Your task to perform on an android device: change the clock display to digital Image 0: 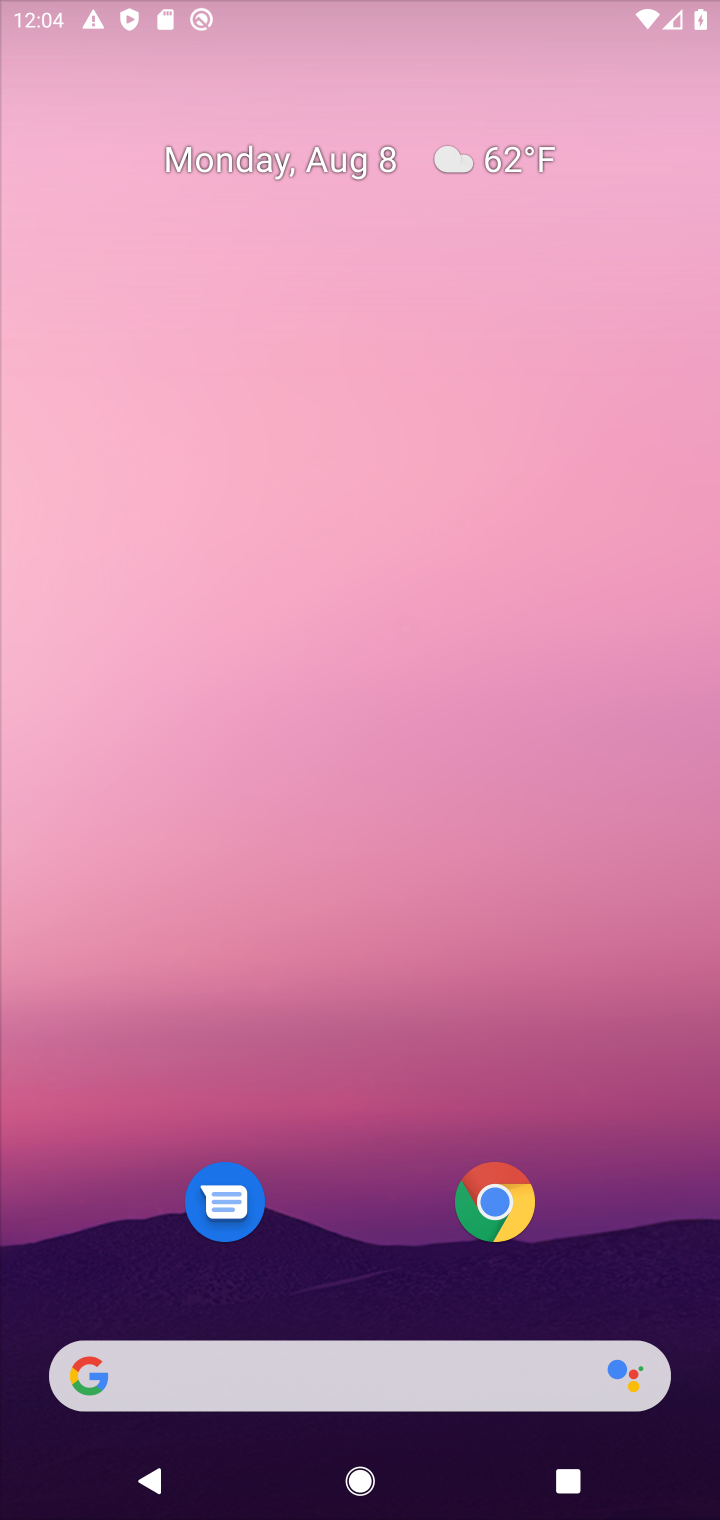
Step 0: press home button
Your task to perform on an android device: change the clock display to digital Image 1: 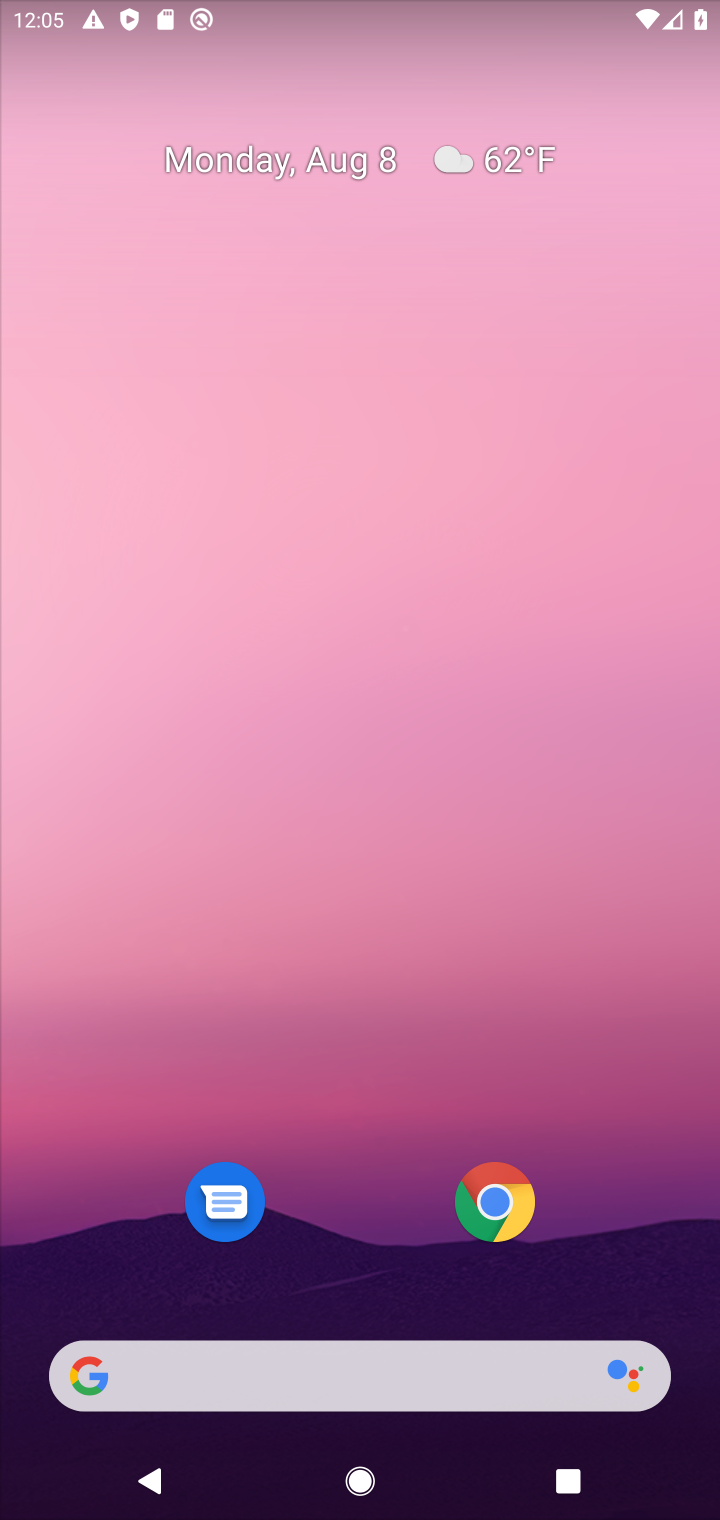
Step 1: drag from (201, 593) to (174, 348)
Your task to perform on an android device: change the clock display to digital Image 2: 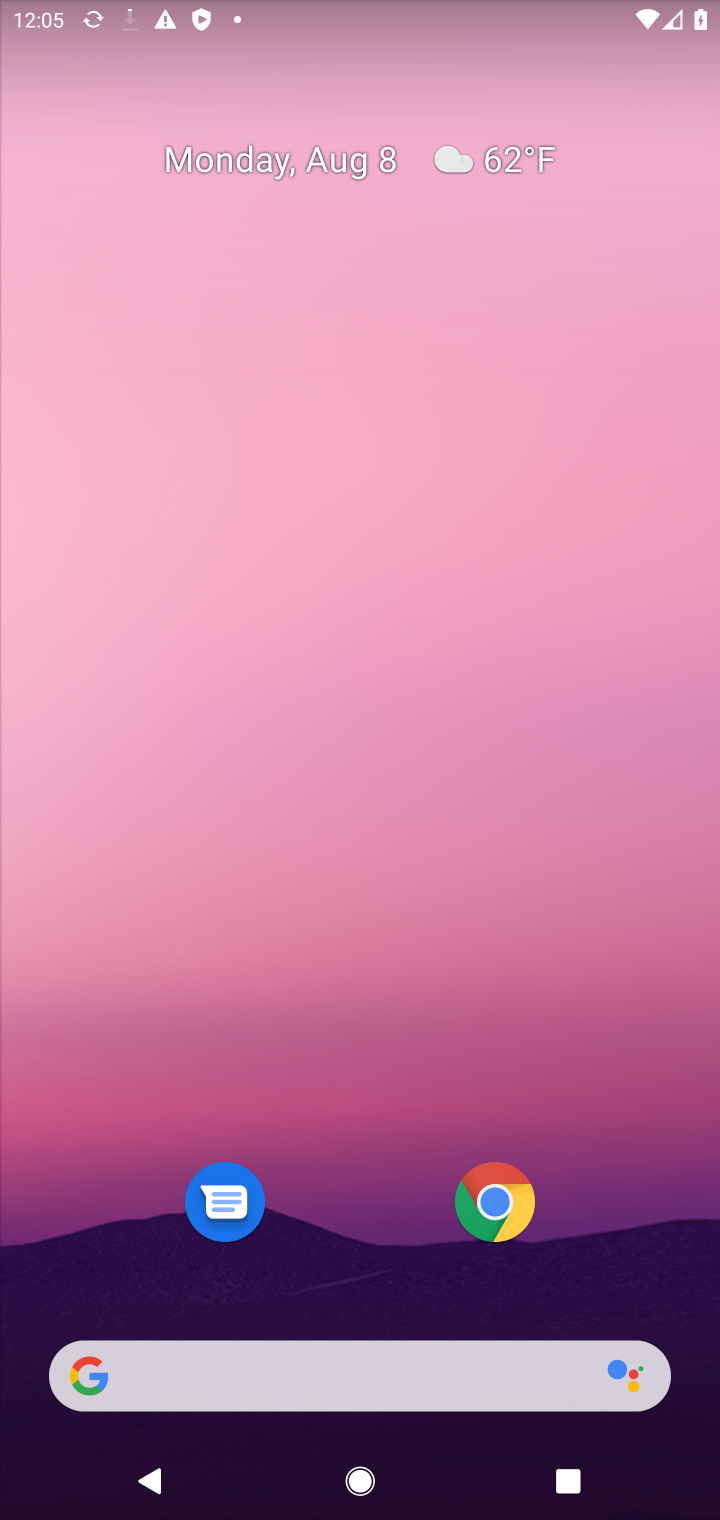
Step 2: click (324, 321)
Your task to perform on an android device: change the clock display to digital Image 3: 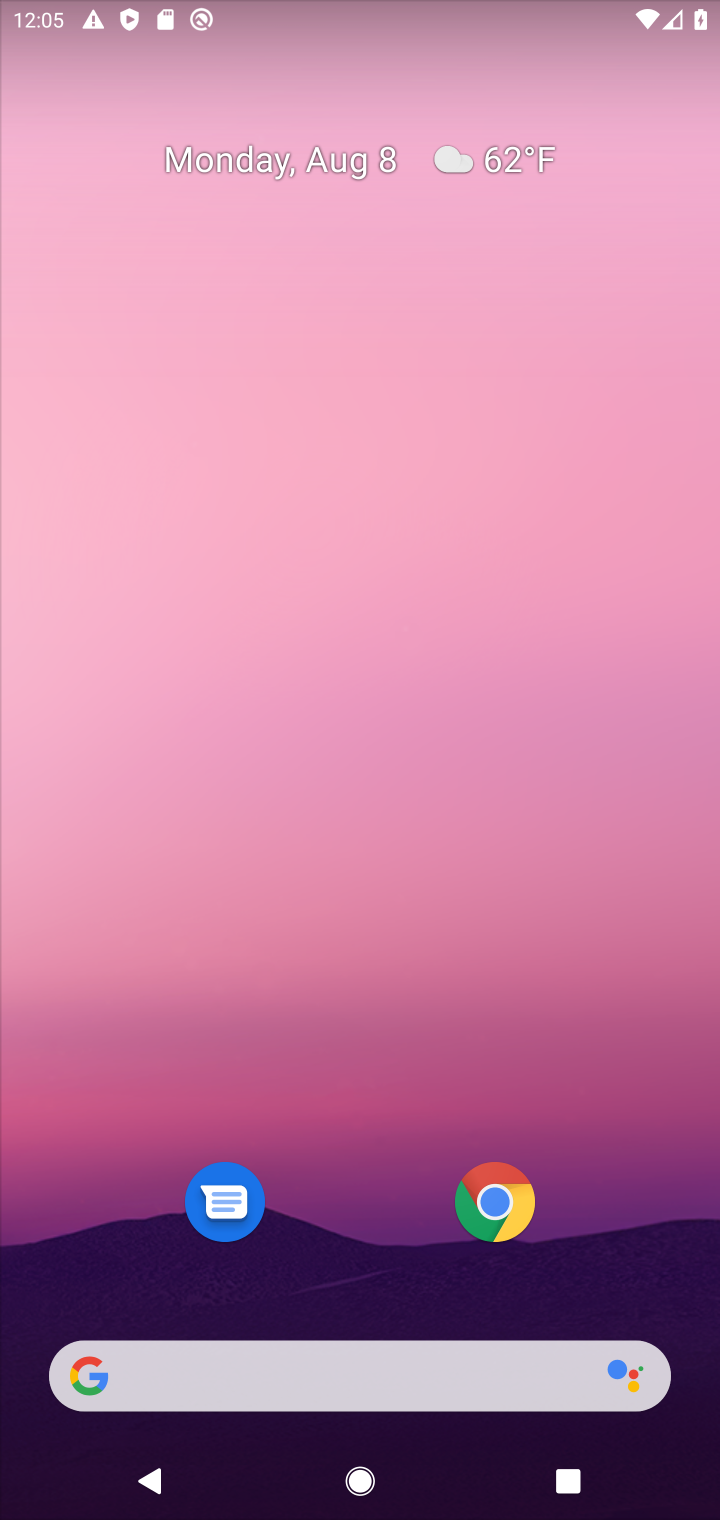
Step 3: click (261, 373)
Your task to perform on an android device: change the clock display to digital Image 4: 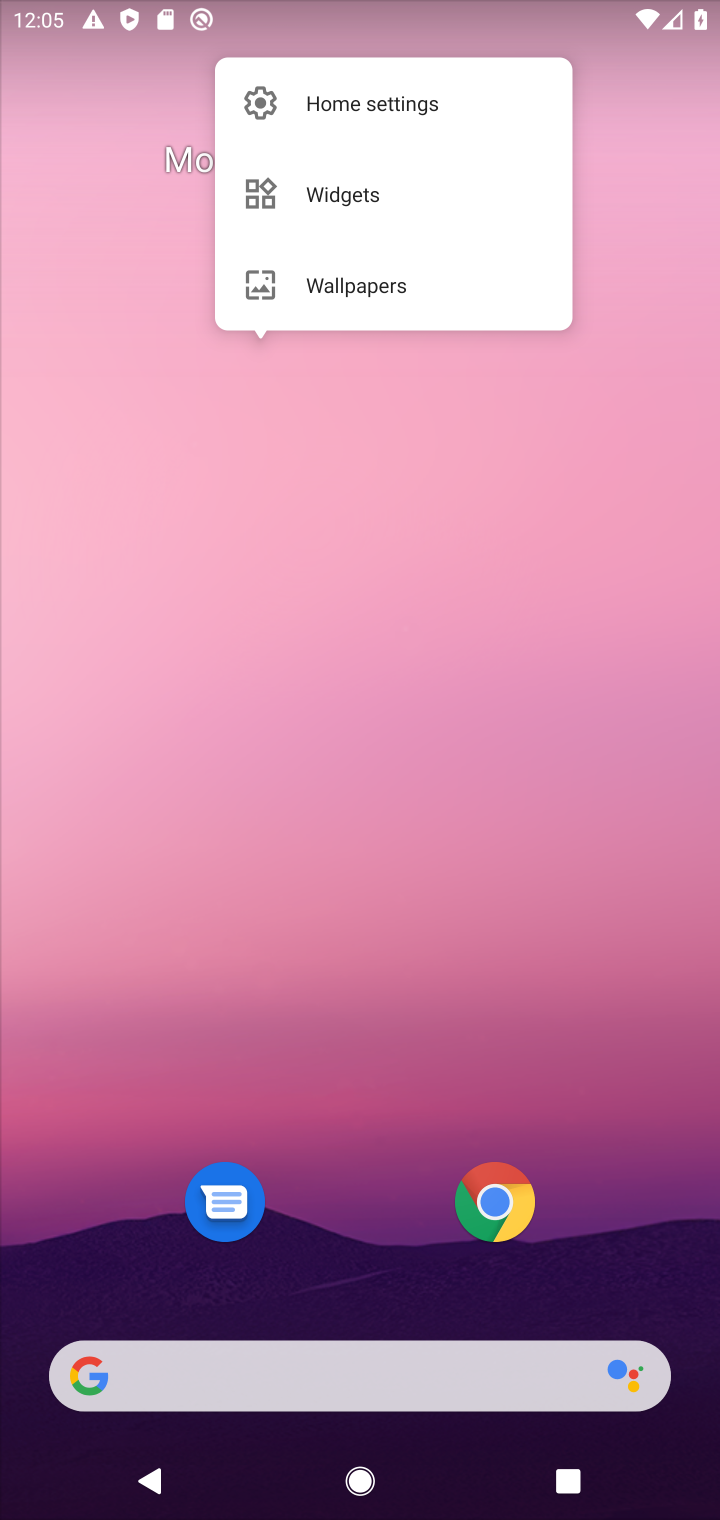
Step 4: click (379, 1283)
Your task to perform on an android device: change the clock display to digital Image 5: 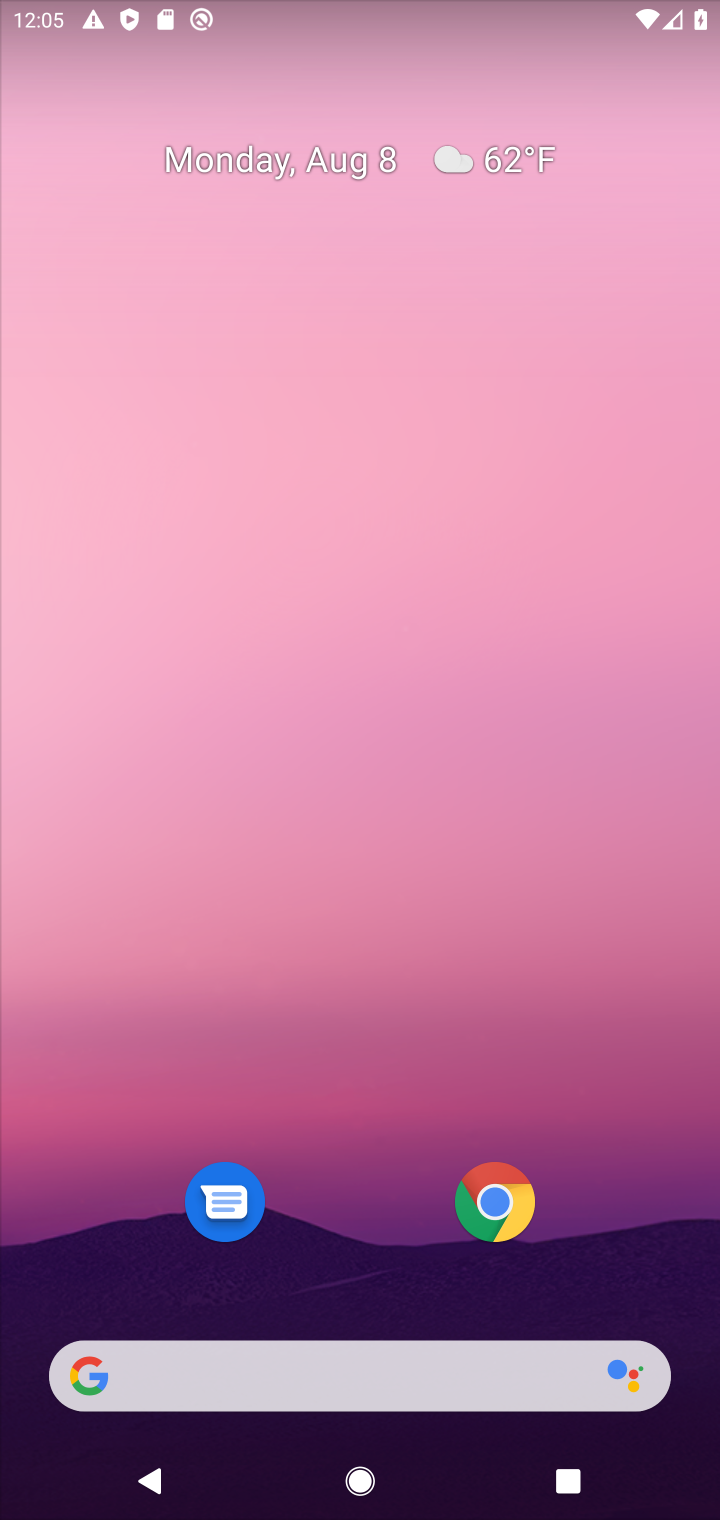
Step 5: drag from (379, 1283) to (333, 121)
Your task to perform on an android device: change the clock display to digital Image 6: 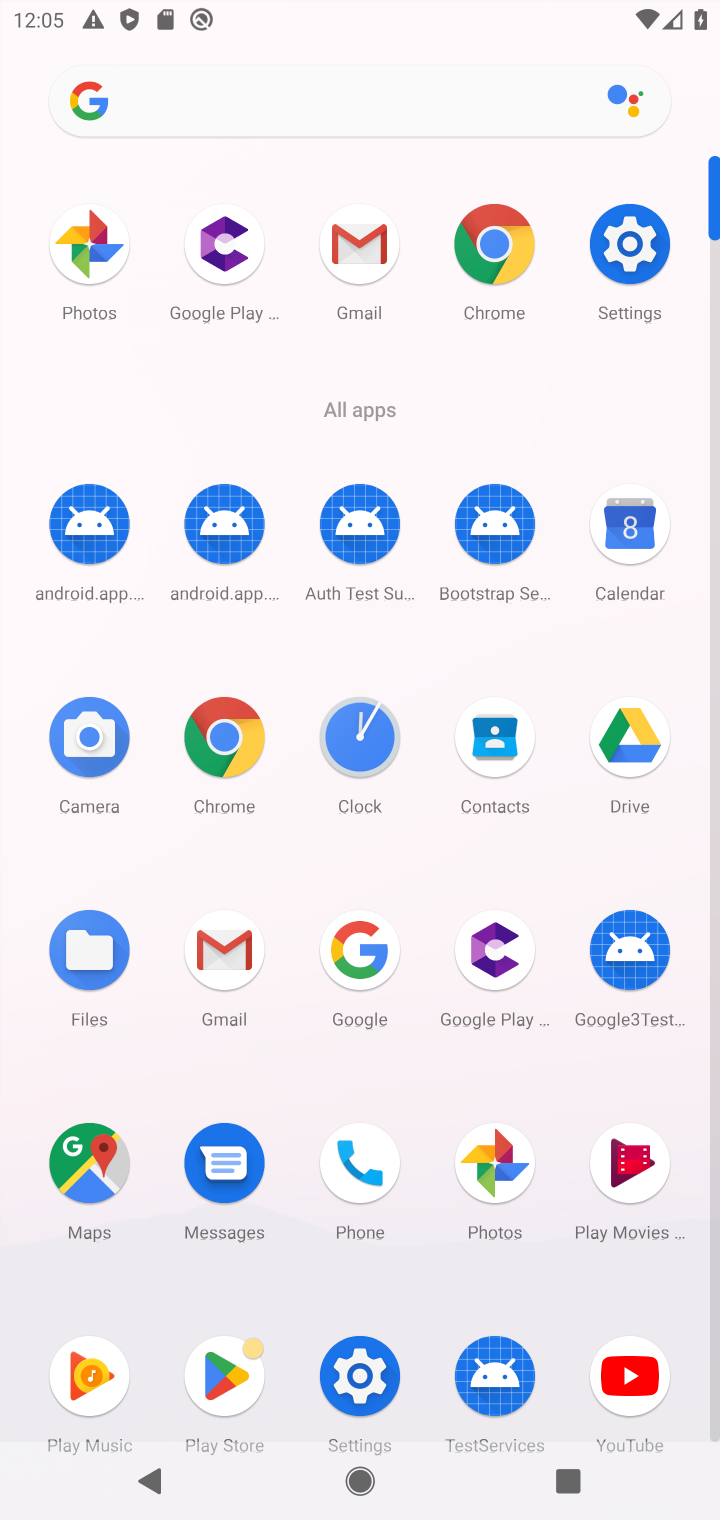
Step 6: click (362, 766)
Your task to perform on an android device: change the clock display to digital Image 7: 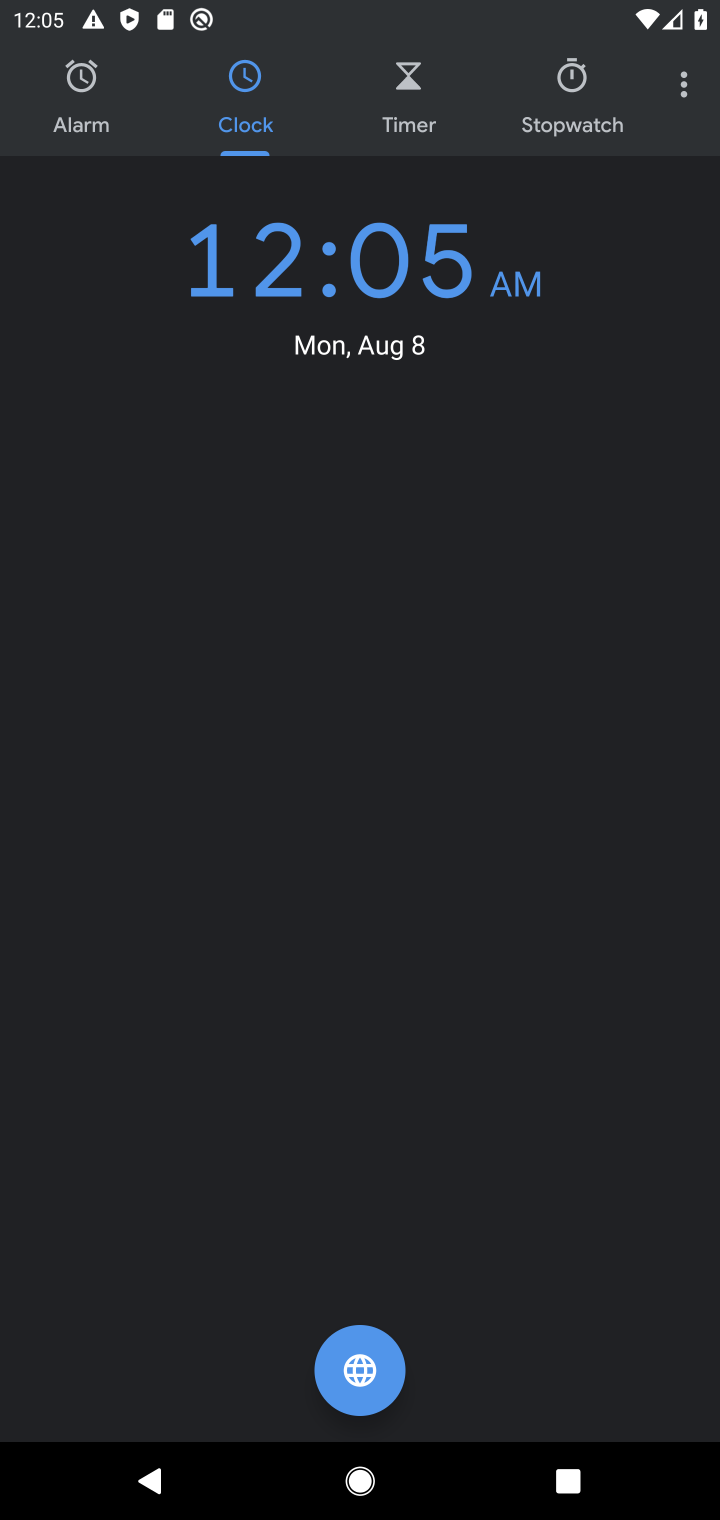
Step 7: click (689, 103)
Your task to perform on an android device: change the clock display to digital Image 8: 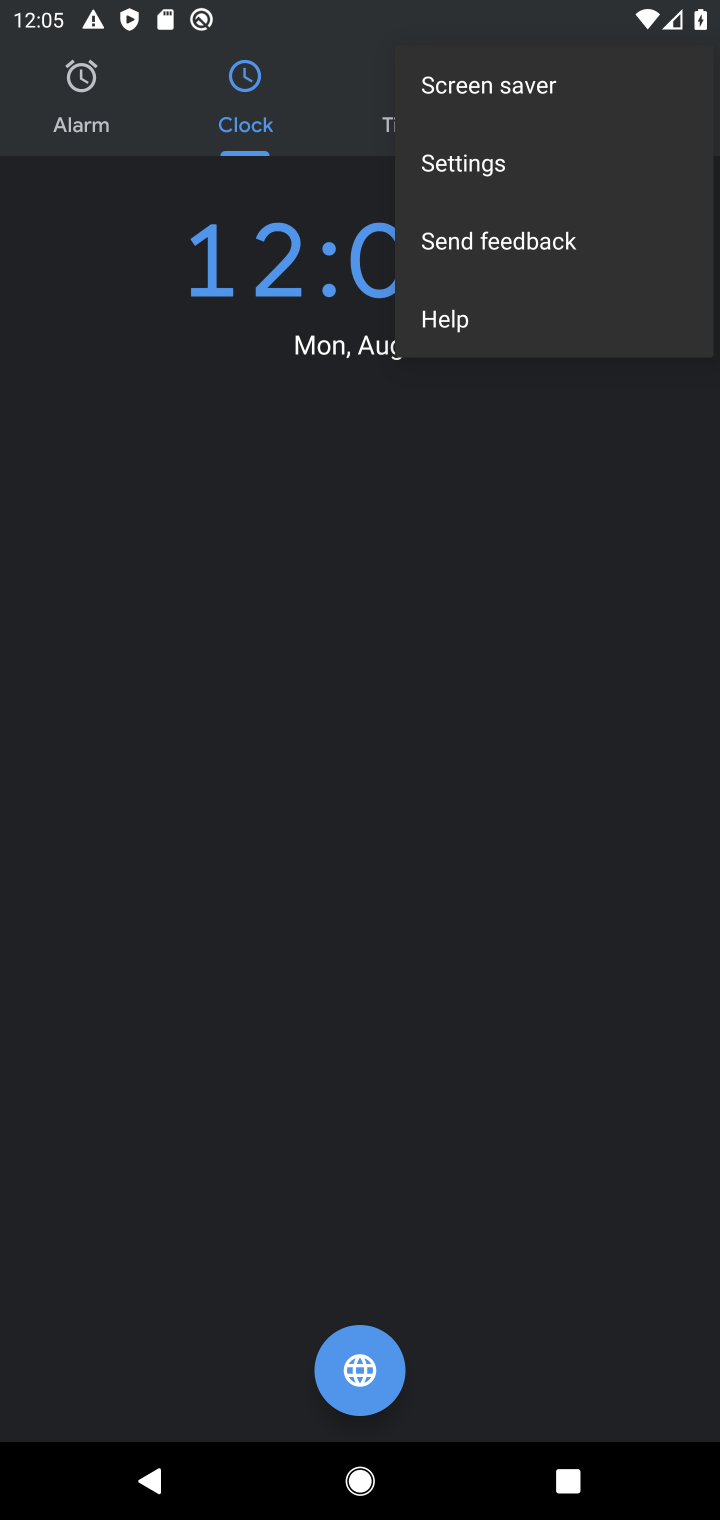
Step 8: click (487, 160)
Your task to perform on an android device: change the clock display to digital Image 9: 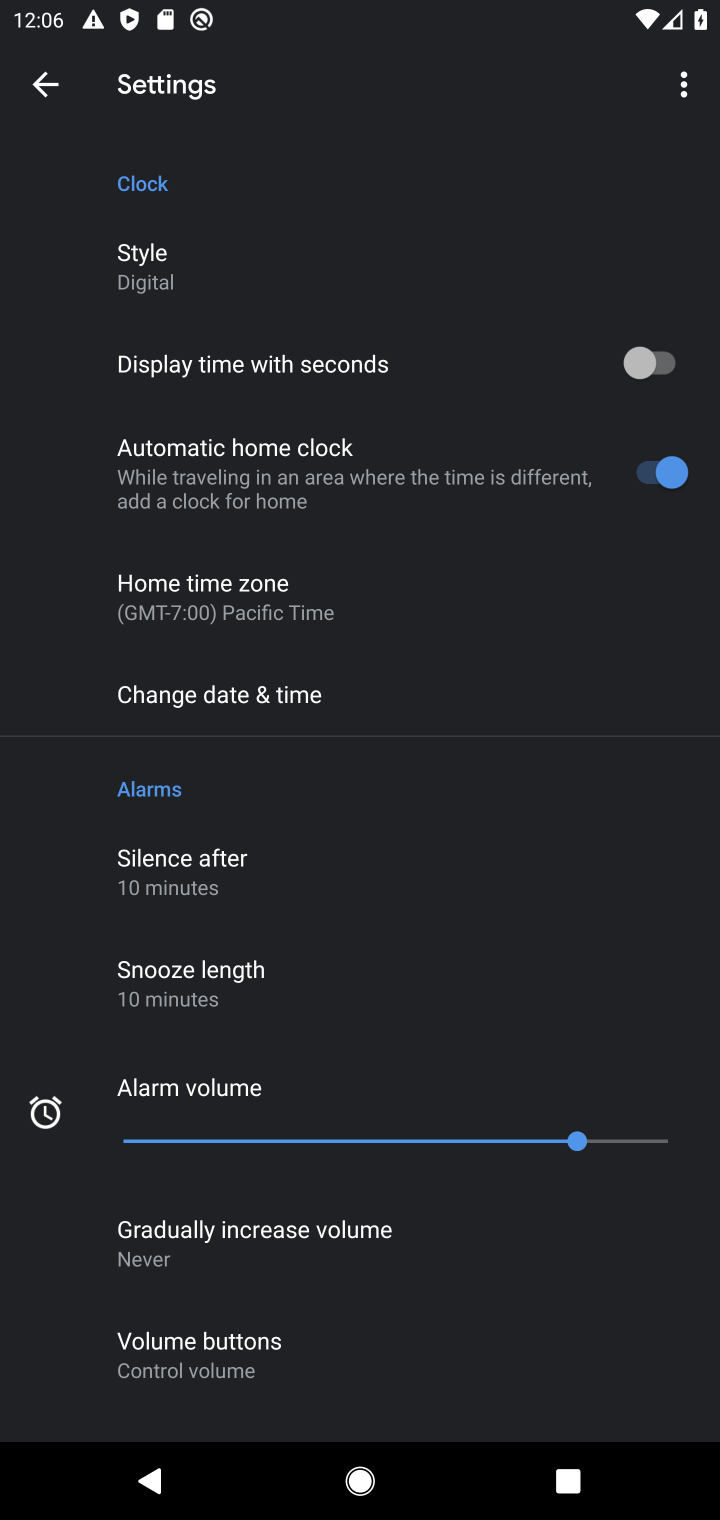
Step 9: click (142, 281)
Your task to perform on an android device: change the clock display to digital Image 10: 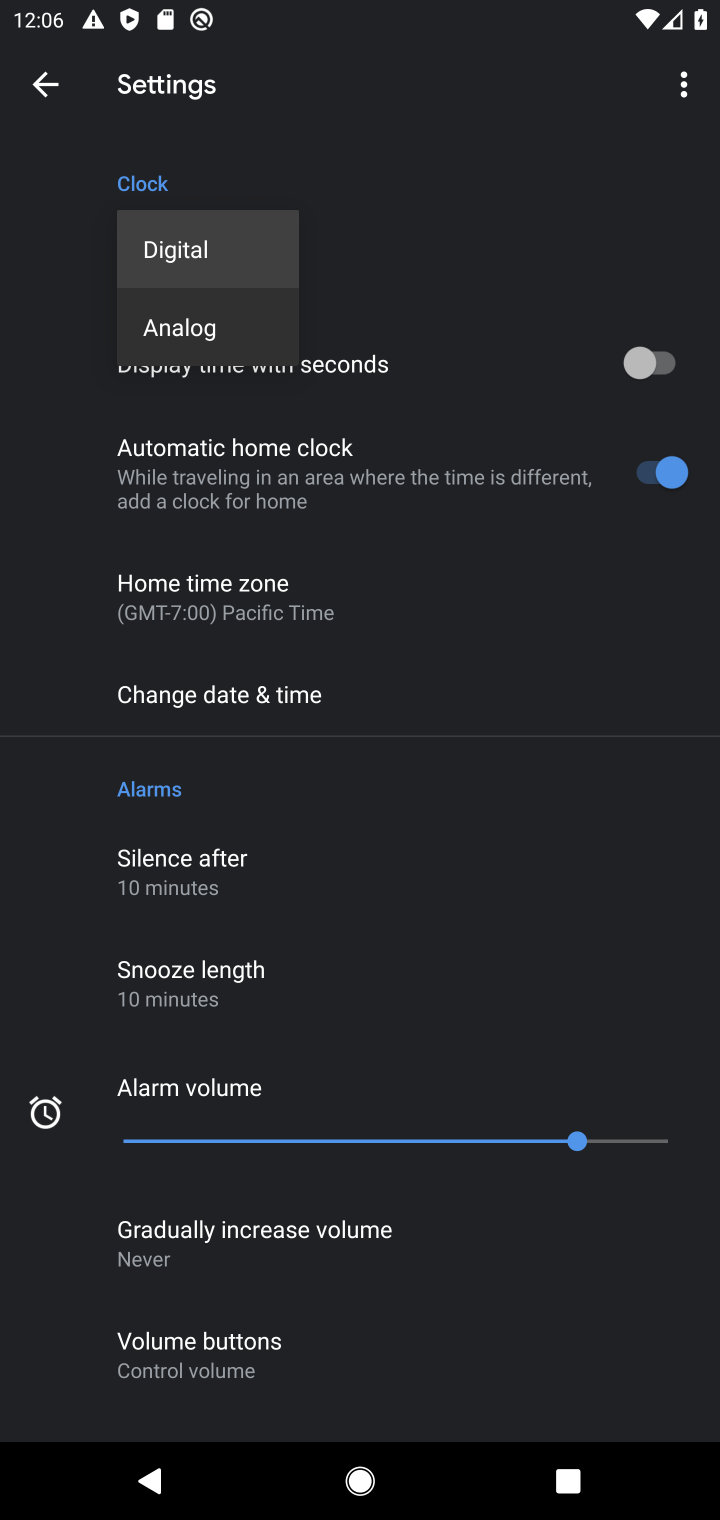
Step 10: task complete